Your task to perform on an android device: Open Yahoo.com Image 0: 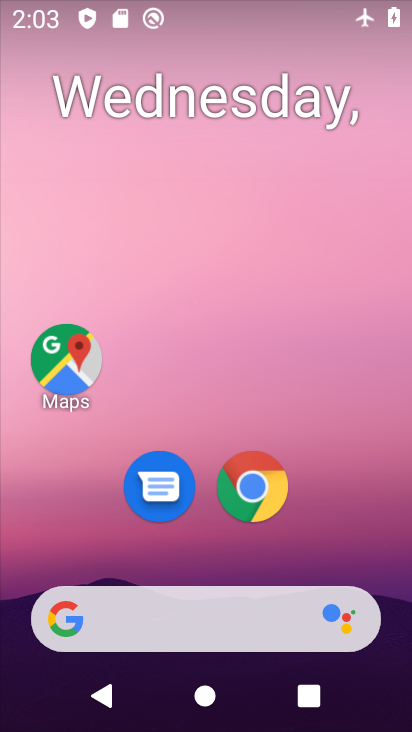
Step 0: click (271, 620)
Your task to perform on an android device: Open Yahoo.com Image 1: 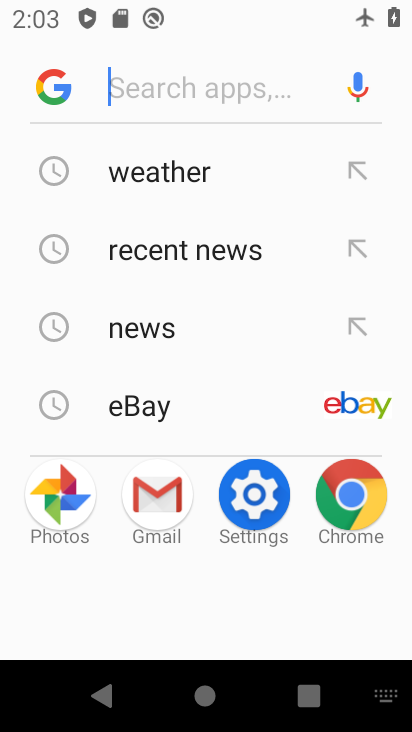
Step 1: type "yahoo.com"
Your task to perform on an android device: Open Yahoo.com Image 2: 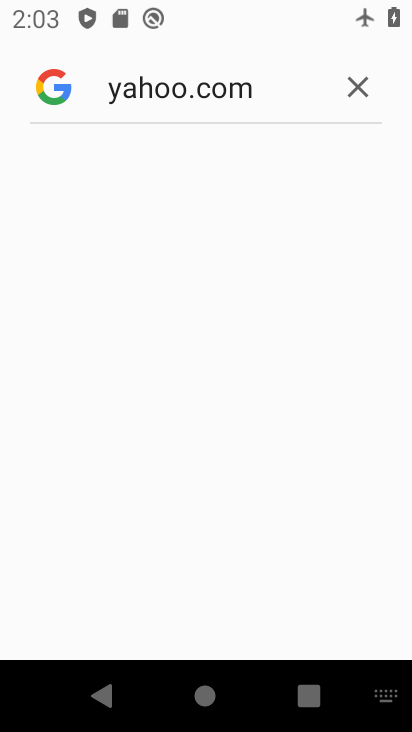
Step 2: task complete